Your task to perform on an android device: change your default location settings in chrome Image 0: 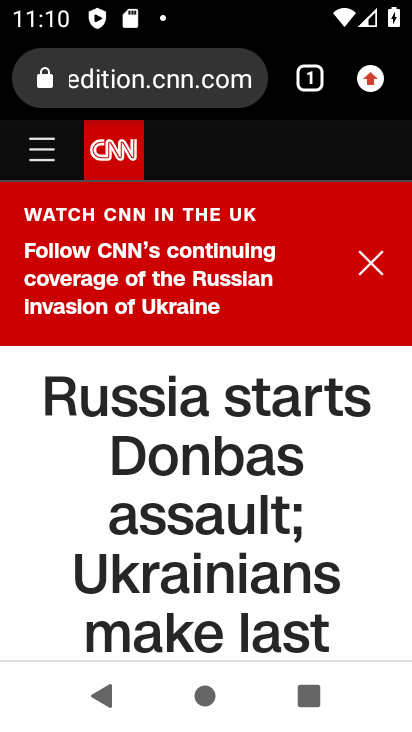
Step 0: press home button
Your task to perform on an android device: change your default location settings in chrome Image 1: 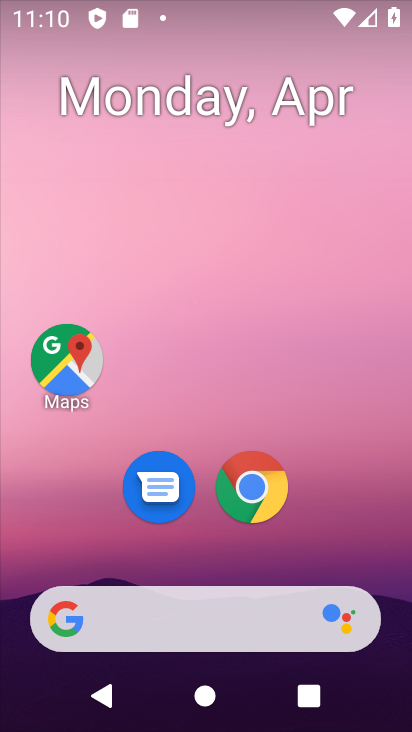
Step 1: drag from (379, 552) to (214, 125)
Your task to perform on an android device: change your default location settings in chrome Image 2: 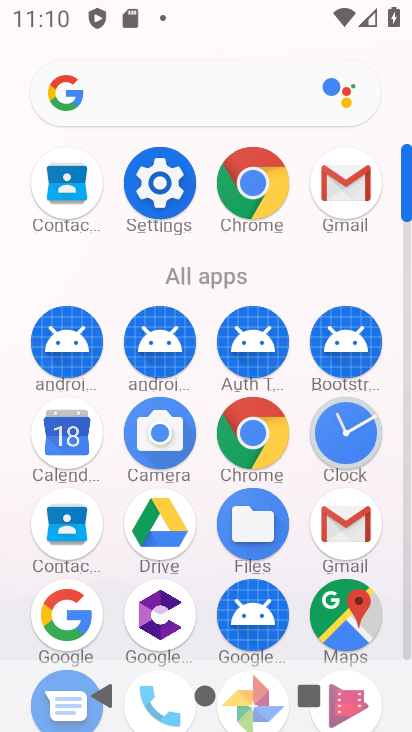
Step 2: click (246, 178)
Your task to perform on an android device: change your default location settings in chrome Image 3: 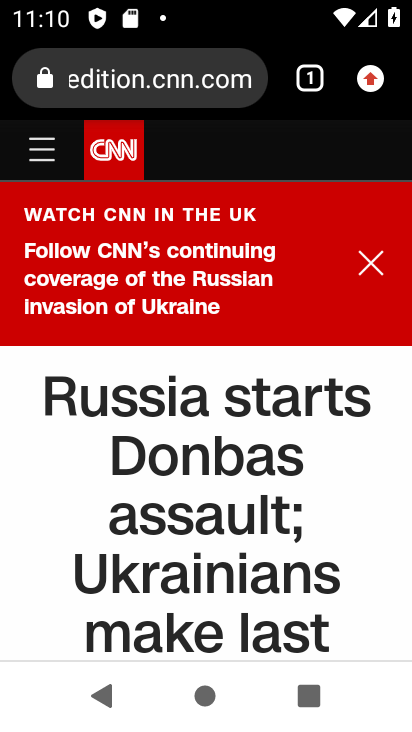
Step 3: drag from (364, 103) to (166, 561)
Your task to perform on an android device: change your default location settings in chrome Image 4: 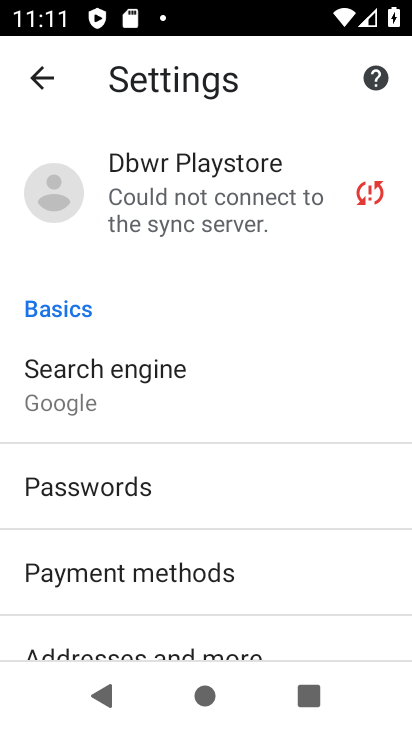
Step 4: drag from (211, 635) to (183, 269)
Your task to perform on an android device: change your default location settings in chrome Image 5: 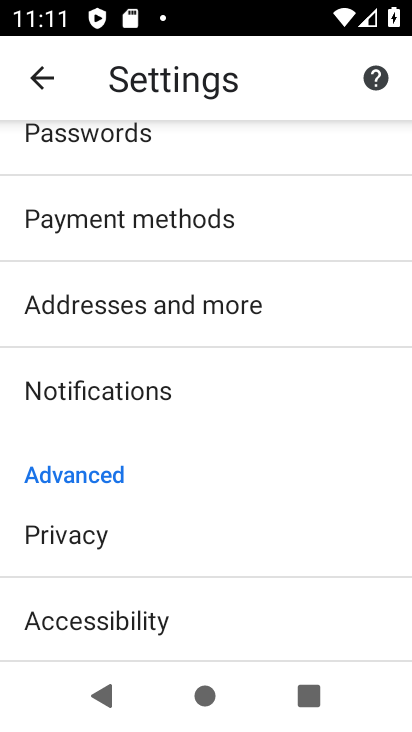
Step 5: drag from (245, 591) to (223, 191)
Your task to perform on an android device: change your default location settings in chrome Image 6: 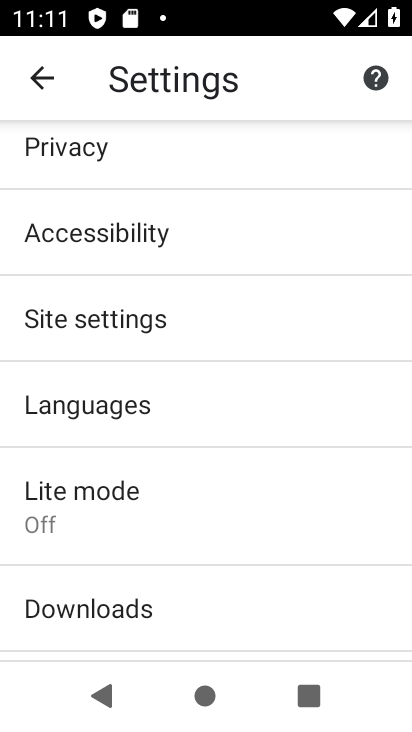
Step 6: click (192, 343)
Your task to perform on an android device: change your default location settings in chrome Image 7: 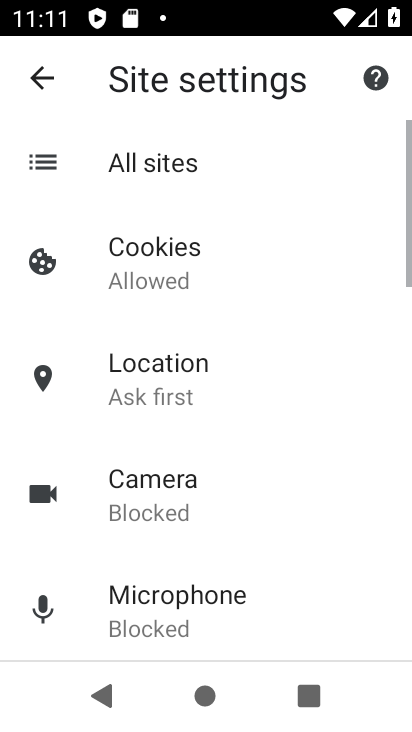
Step 7: click (195, 368)
Your task to perform on an android device: change your default location settings in chrome Image 8: 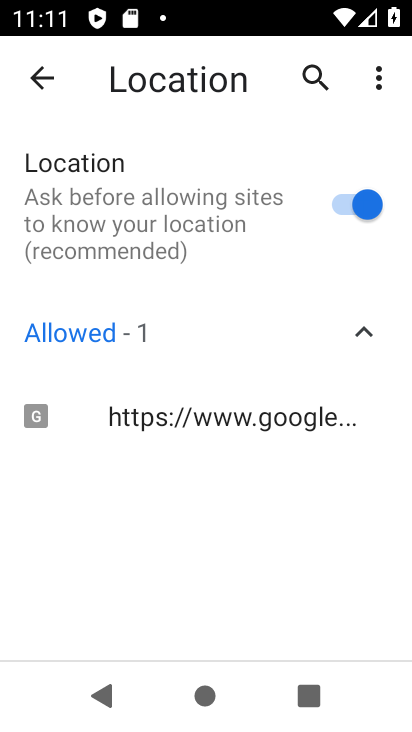
Step 8: task complete